Your task to perform on an android device: check android version Image 0: 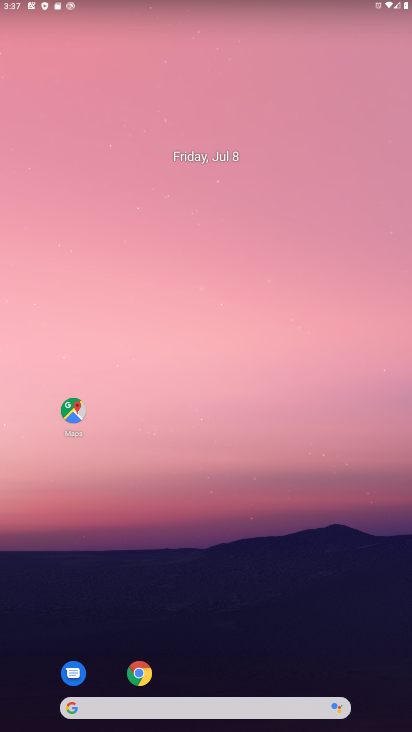
Step 0: drag from (232, 658) to (203, 53)
Your task to perform on an android device: check android version Image 1: 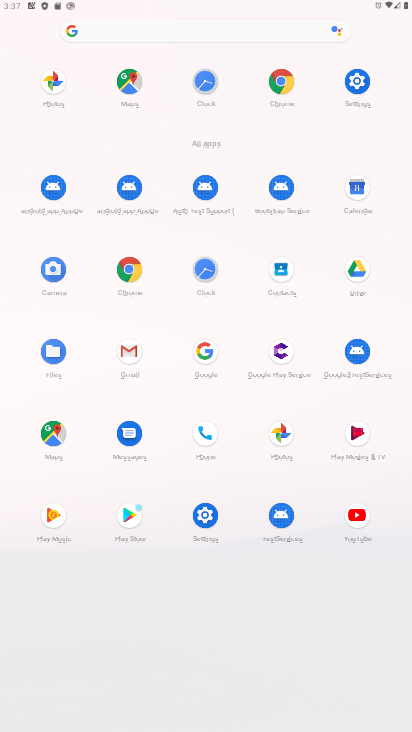
Step 1: click (356, 75)
Your task to perform on an android device: check android version Image 2: 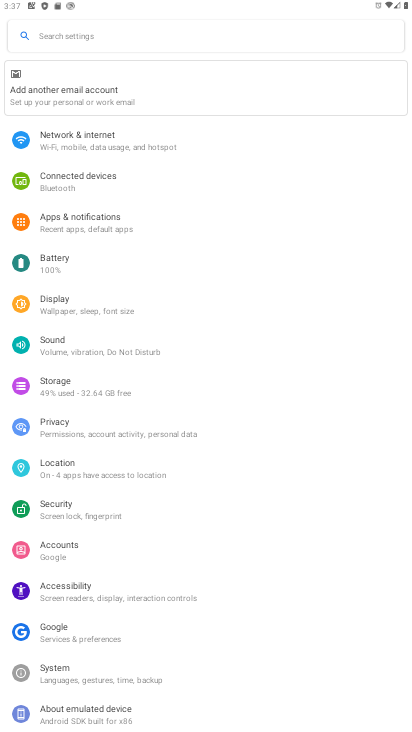
Step 2: click (78, 715)
Your task to perform on an android device: check android version Image 3: 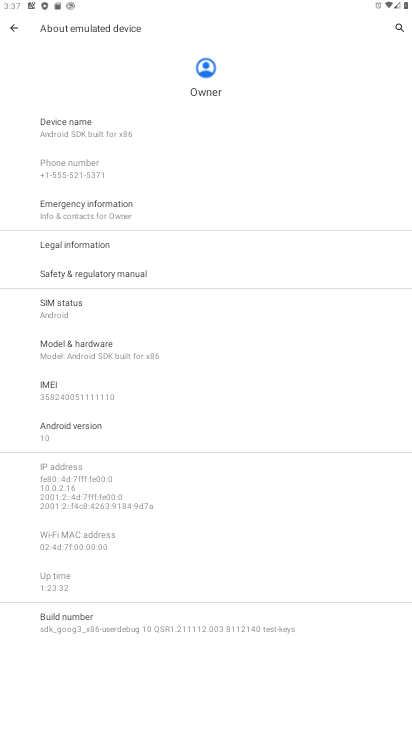
Step 3: click (54, 432)
Your task to perform on an android device: check android version Image 4: 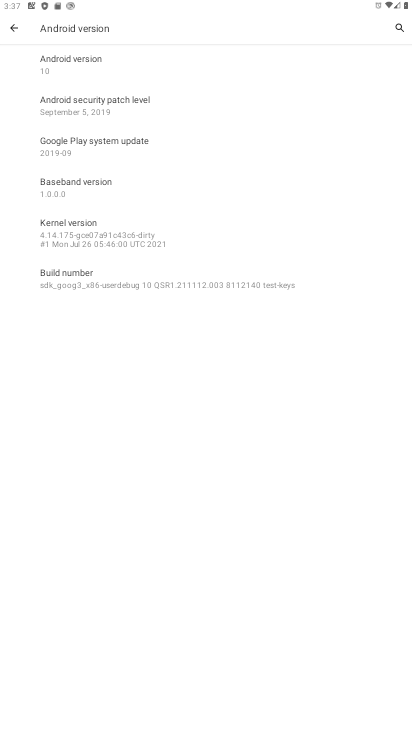
Step 4: task complete